Your task to perform on an android device: Go to network settings Image 0: 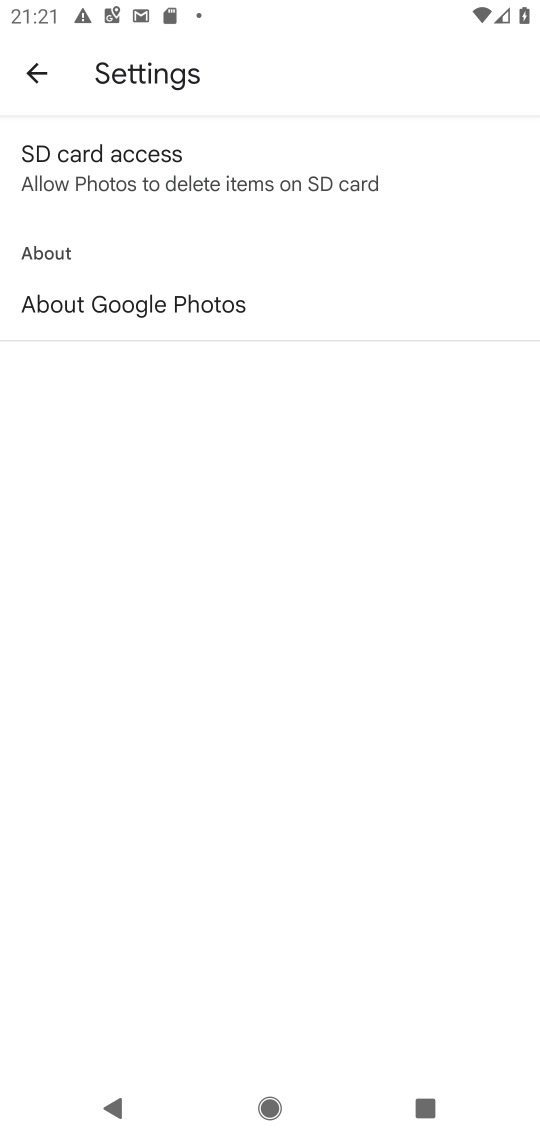
Step 0: press home button
Your task to perform on an android device: Go to network settings Image 1: 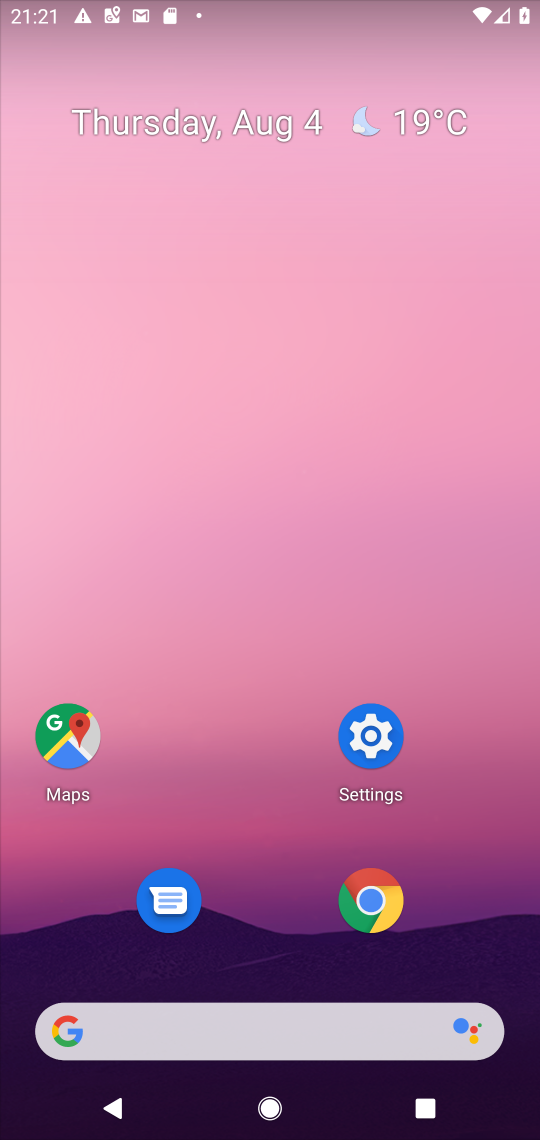
Step 1: click (370, 728)
Your task to perform on an android device: Go to network settings Image 2: 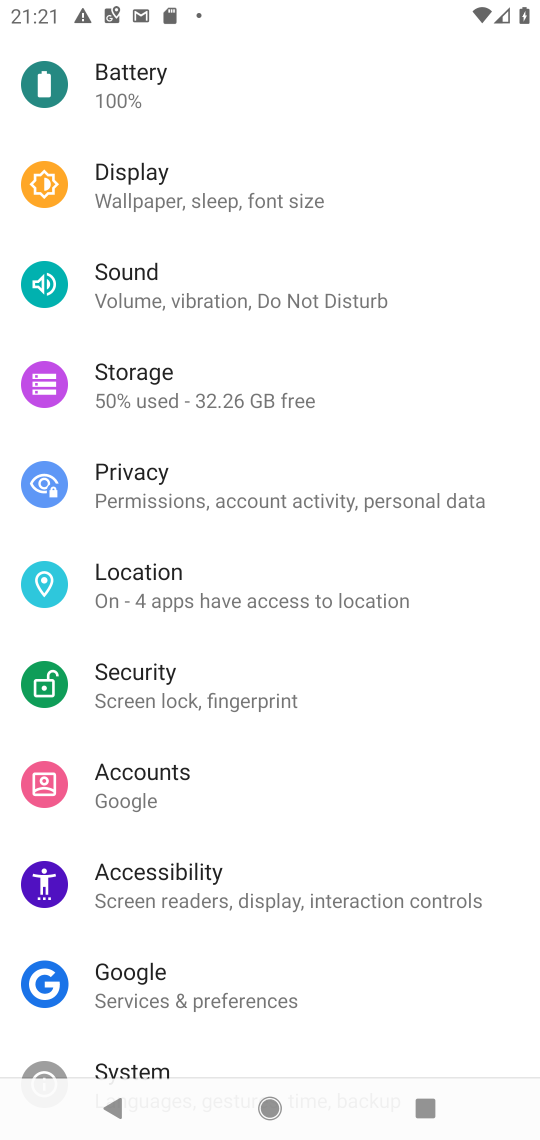
Step 2: drag from (351, 115) to (269, 821)
Your task to perform on an android device: Go to network settings Image 3: 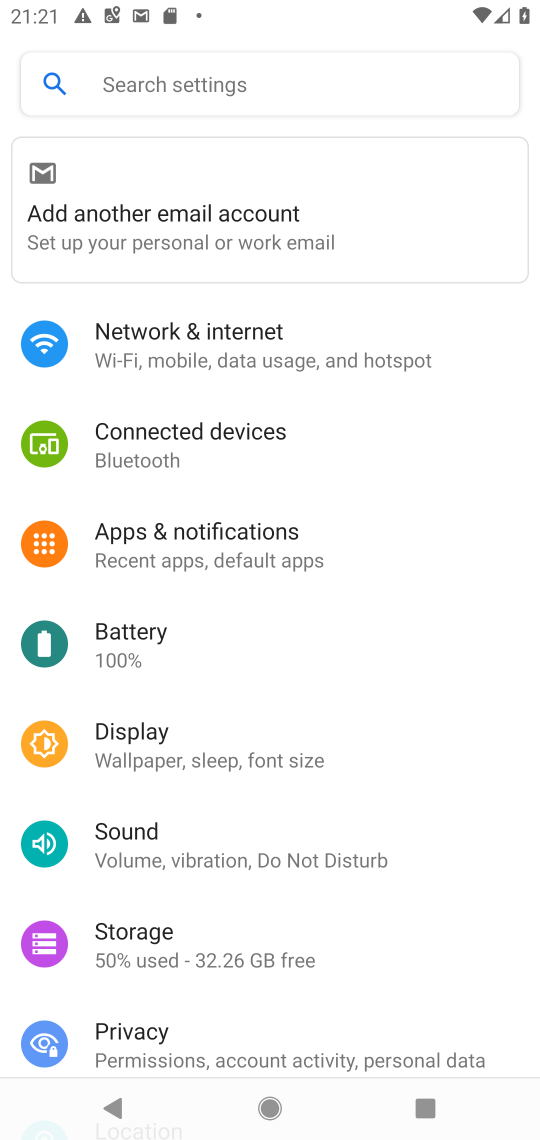
Step 3: click (193, 351)
Your task to perform on an android device: Go to network settings Image 4: 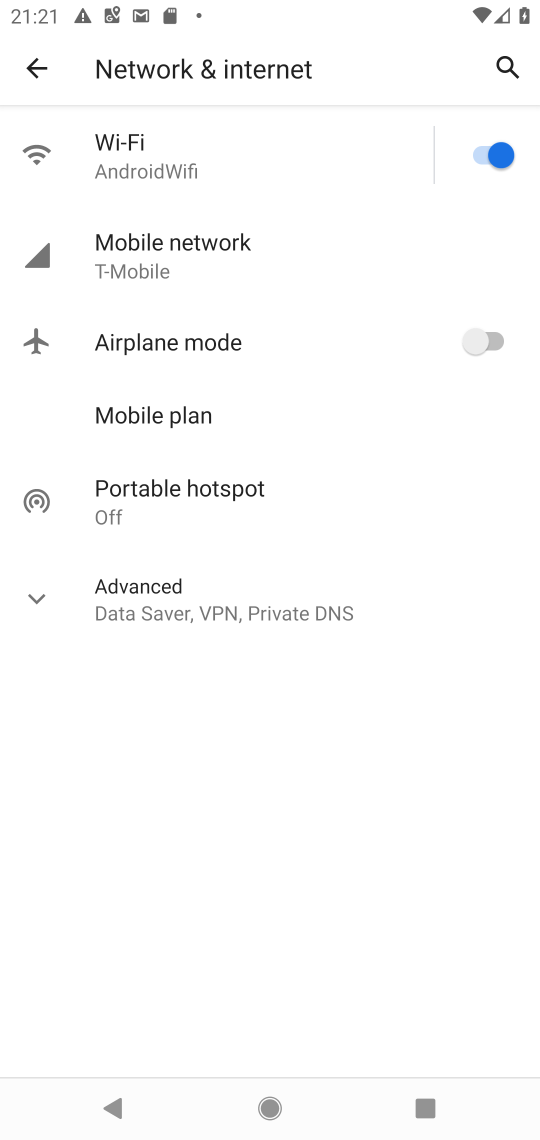
Step 4: click (185, 261)
Your task to perform on an android device: Go to network settings Image 5: 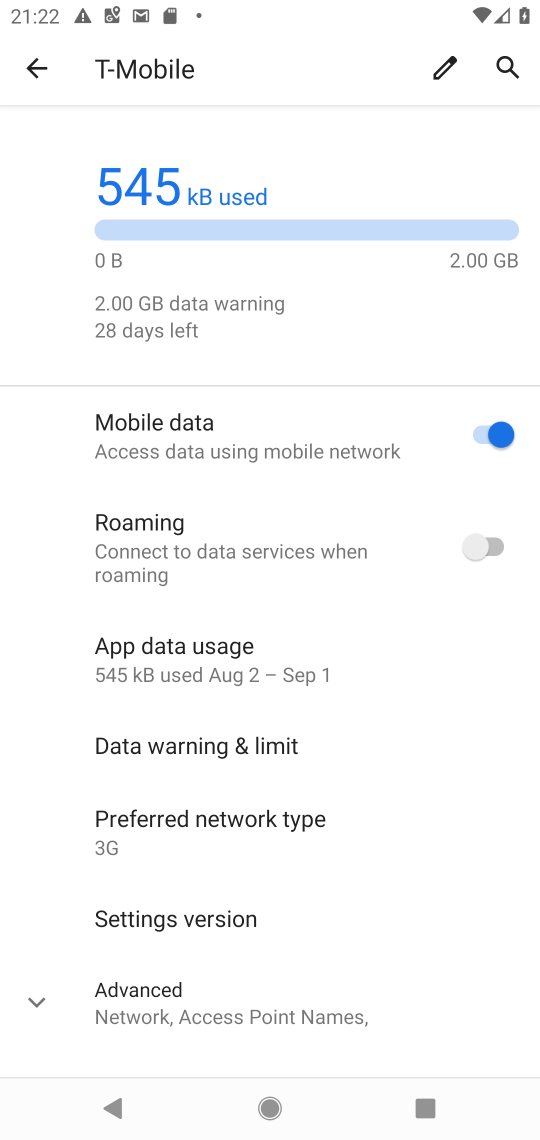
Step 5: task complete